Your task to perform on an android device: Open the stopwatch Image 0: 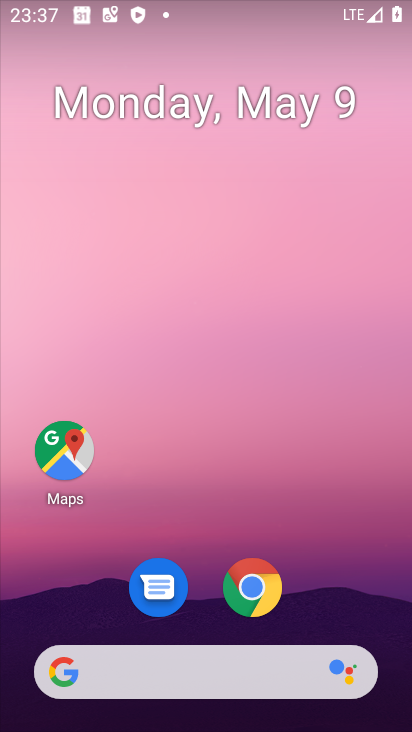
Step 0: drag from (219, 616) to (219, 144)
Your task to perform on an android device: Open the stopwatch Image 1: 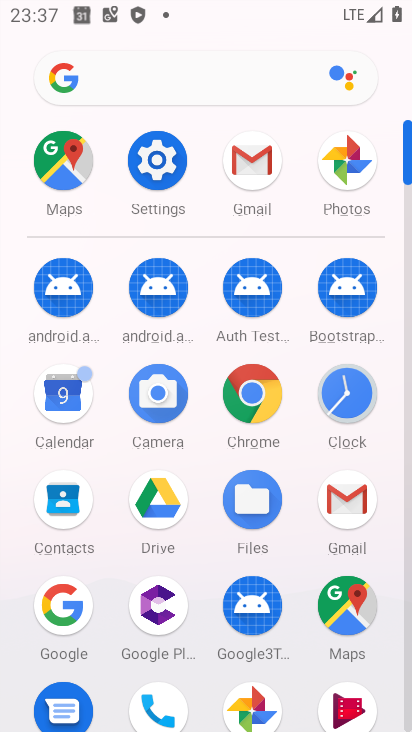
Step 1: click (336, 379)
Your task to perform on an android device: Open the stopwatch Image 2: 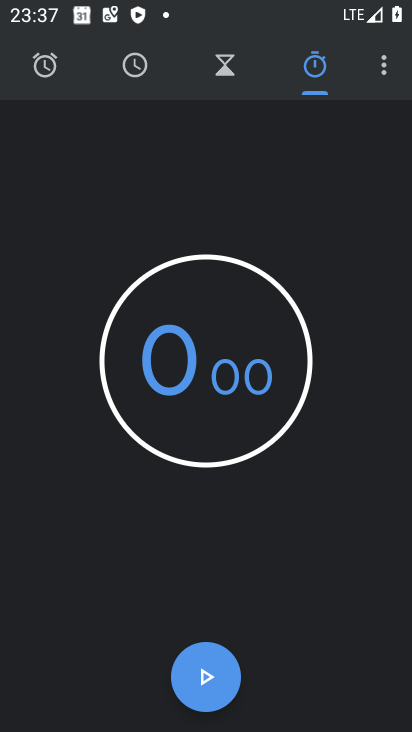
Step 2: task complete